Your task to perform on an android device: search for starred emails in the gmail app Image 0: 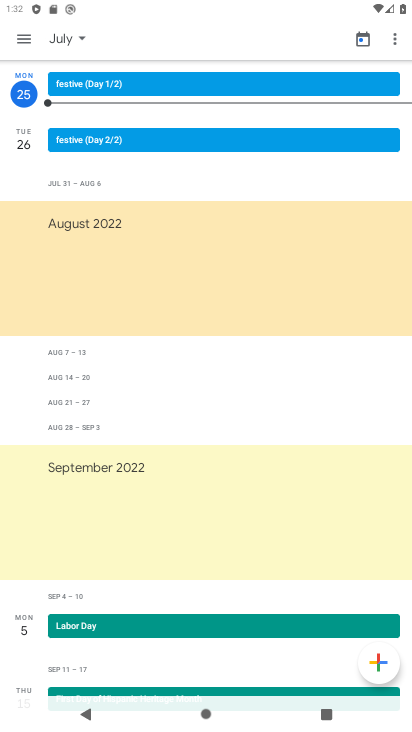
Step 0: press home button
Your task to perform on an android device: search for starred emails in the gmail app Image 1: 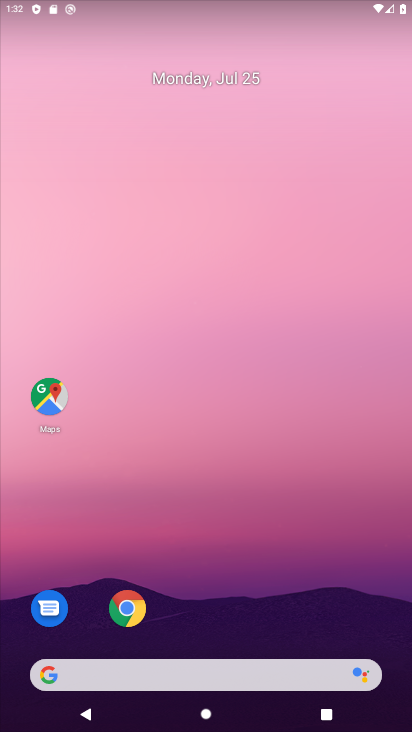
Step 1: drag from (247, 665) to (323, 125)
Your task to perform on an android device: search for starred emails in the gmail app Image 2: 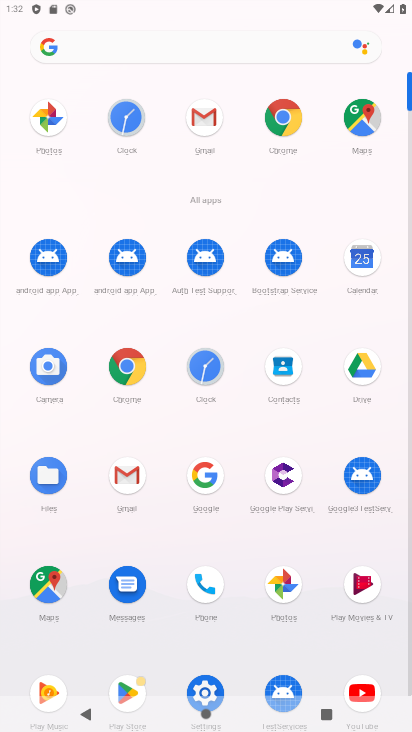
Step 2: click (114, 476)
Your task to perform on an android device: search for starred emails in the gmail app Image 3: 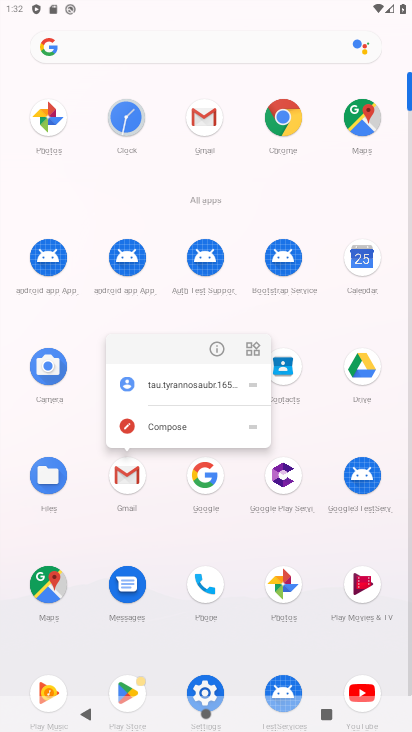
Step 3: click (210, 128)
Your task to perform on an android device: search for starred emails in the gmail app Image 4: 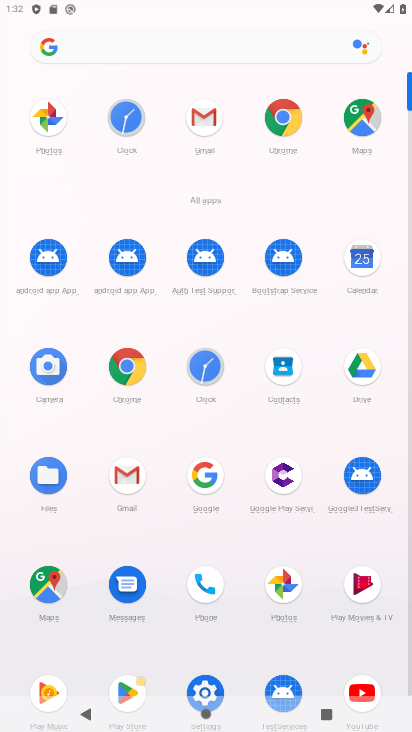
Step 4: click (204, 119)
Your task to perform on an android device: search for starred emails in the gmail app Image 5: 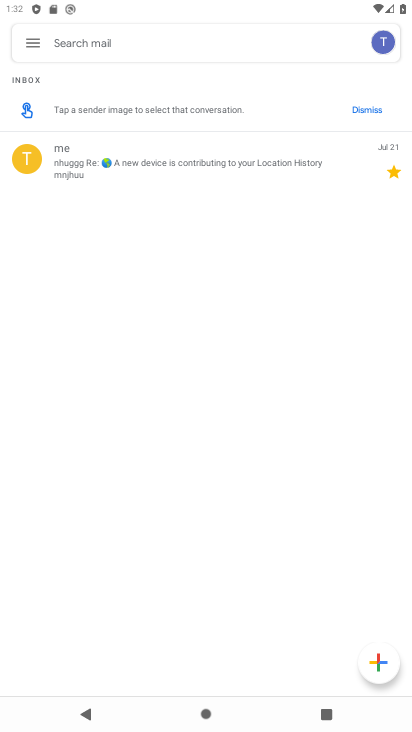
Step 5: click (208, 111)
Your task to perform on an android device: search for starred emails in the gmail app Image 6: 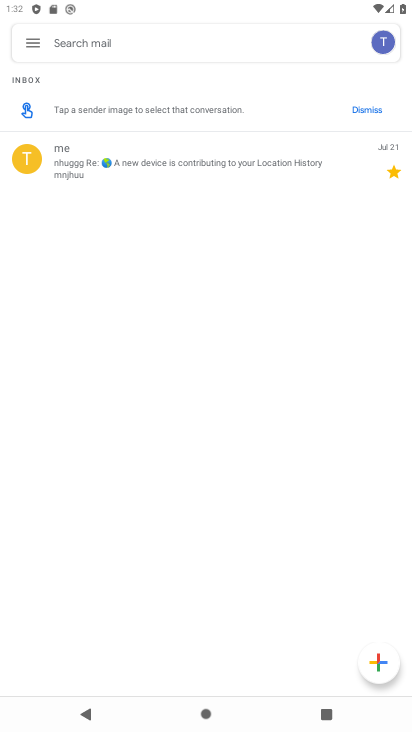
Step 6: click (30, 40)
Your task to perform on an android device: search for starred emails in the gmail app Image 7: 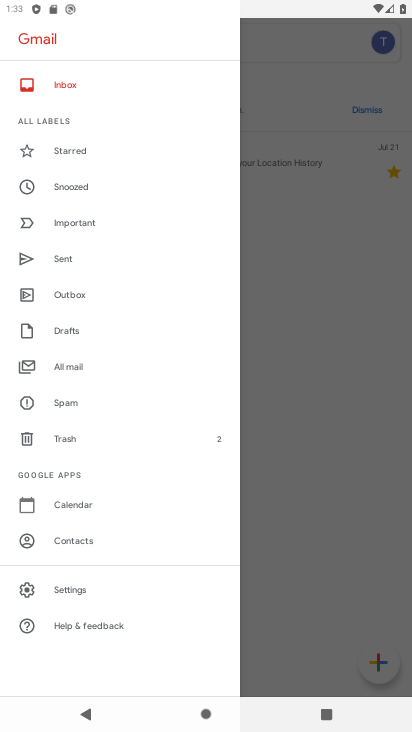
Step 7: click (76, 153)
Your task to perform on an android device: search for starred emails in the gmail app Image 8: 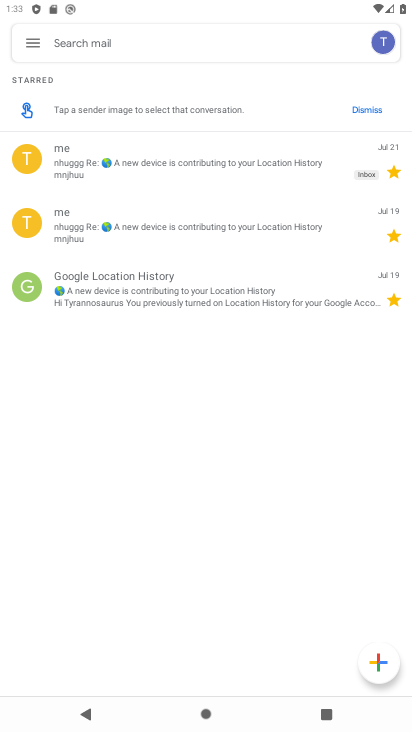
Step 8: task complete